Your task to perform on an android device: read, delete, or share a saved page in the chrome app Image 0: 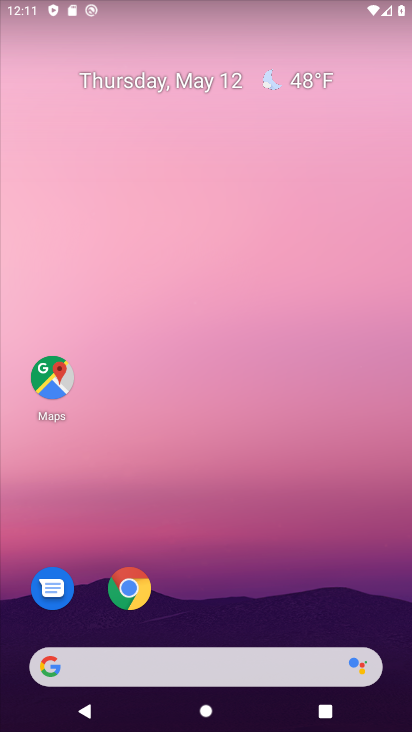
Step 0: drag from (337, 574) to (261, 143)
Your task to perform on an android device: read, delete, or share a saved page in the chrome app Image 1: 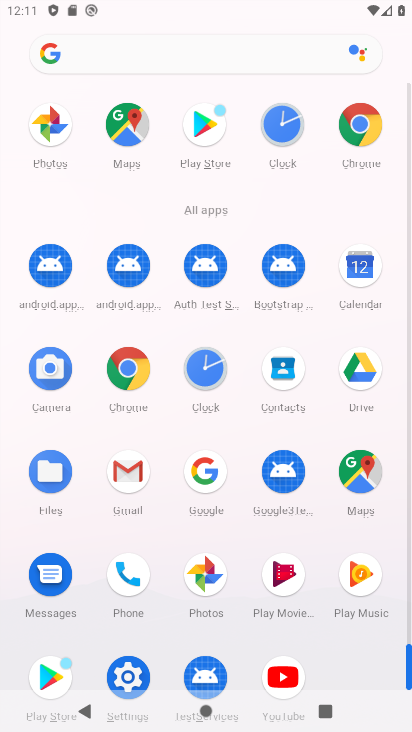
Step 1: click (351, 120)
Your task to perform on an android device: read, delete, or share a saved page in the chrome app Image 2: 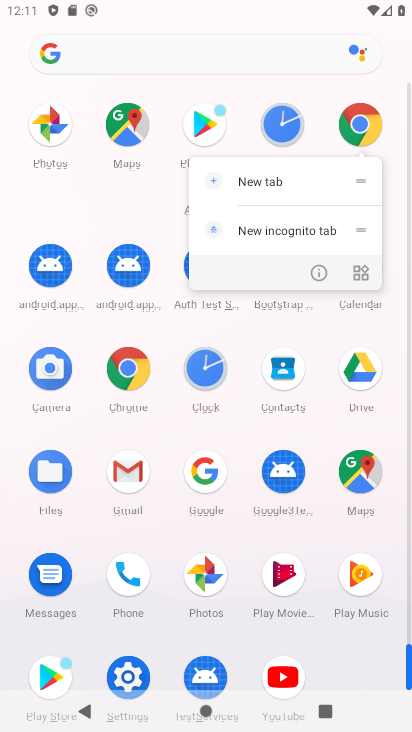
Step 2: click (350, 126)
Your task to perform on an android device: read, delete, or share a saved page in the chrome app Image 3: 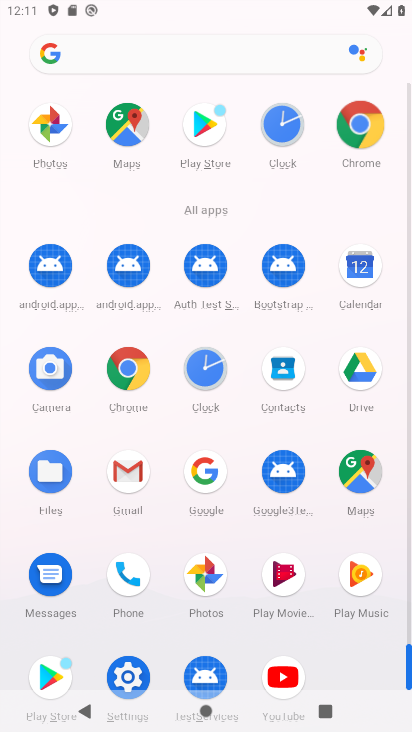
Step 3: click (351, 127)
Your task to perform on an android device: read, delete, or share a saved page in the chrome app Image 4: 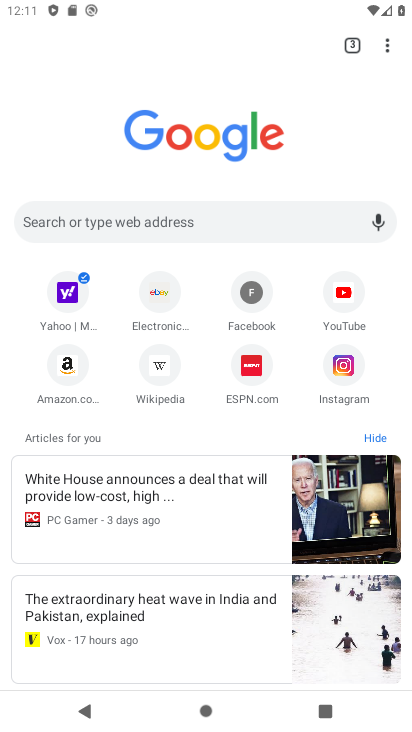
Step 4: drag from (390, 42) to (228, 295)
Your task to perform on an android device: read, delete, or share a saved page in the chrome app Image 5: 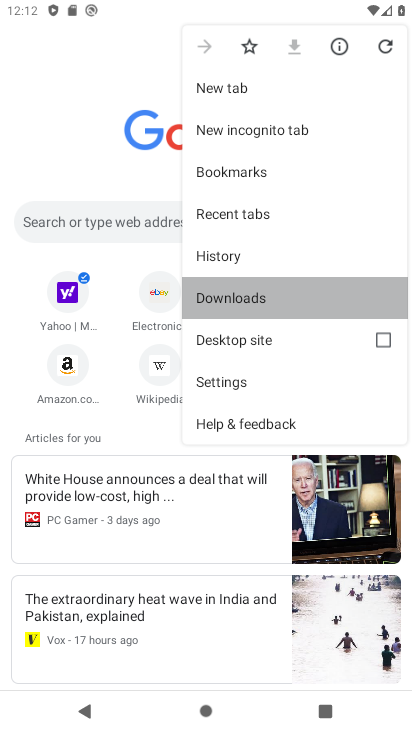
Step 5: click (228, 296)
Your task to perform on an android device: read, delete, or share a saved page in the chrome app Image 6: 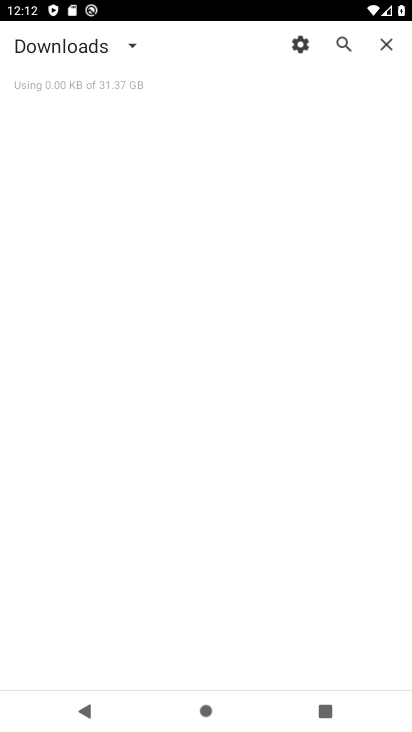
Step 6: click (134, 46)
Your task to perform on an android device: read, delete, or share a saved page in the chrome app Image 7: 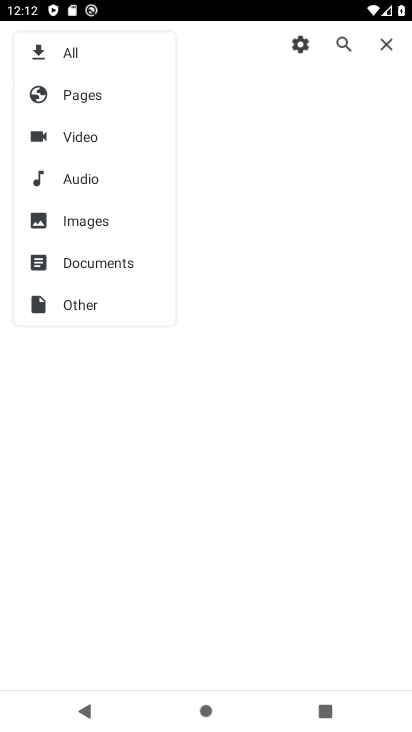
Step 7: click (94, 100)
Your task to perform on an android device: read, delete, or share a saved page in the chrome app Image 8: 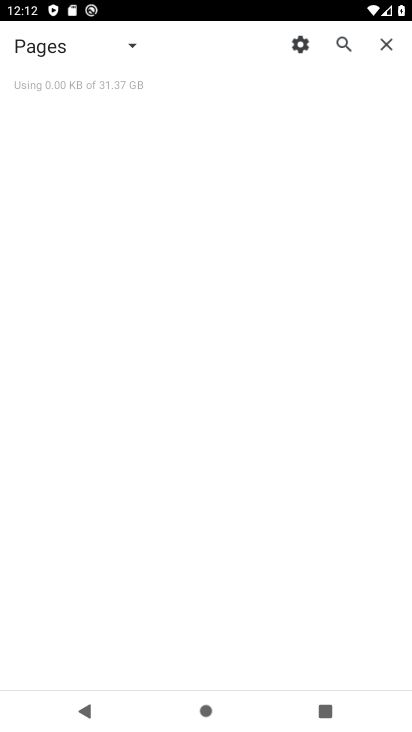
Step 8: task complete